Your task to perform on an android device: install app "VLC for Android" Image 0: 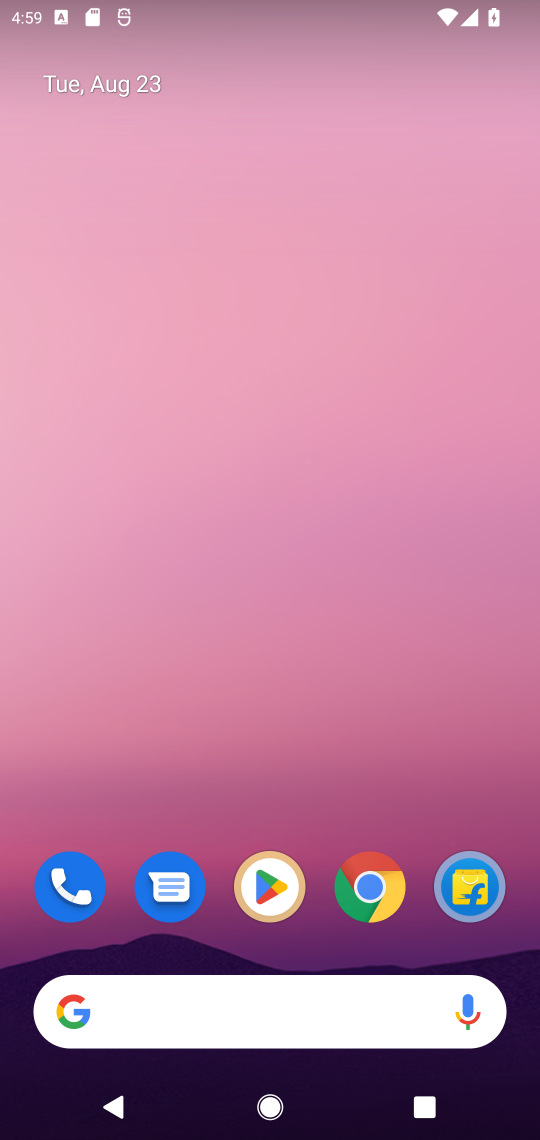
Step 0: click (274, 903)
Your task to perform on an android device: install app "VLC for Android" Image 1: 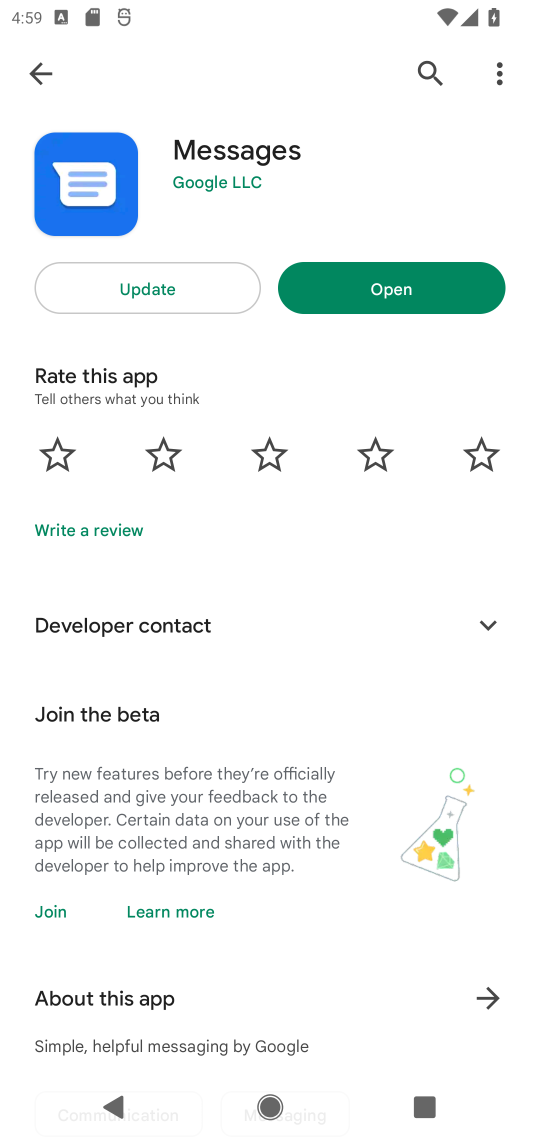
Step 1: click (52, 68)
Your task to perform on an android device: install app "VLC for Android" Image 2: 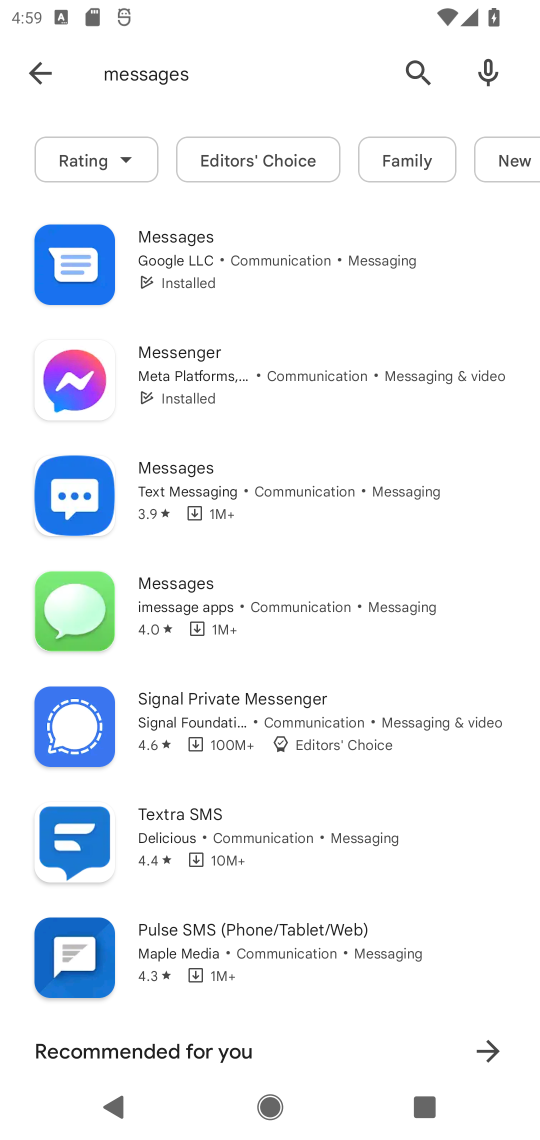
Step 2: click (42, 76)
Your task to perform on an android device: install app "VLC for Android" Image 3: 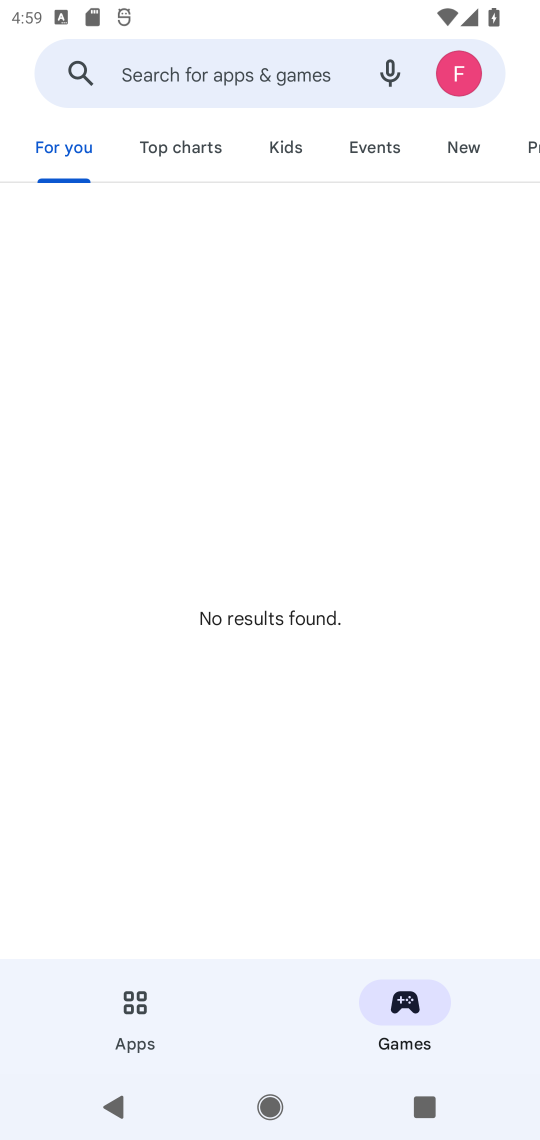
Step 3: click (230, 71)
Your task to perform on an android device: install app "VLC for Android" Image 4: 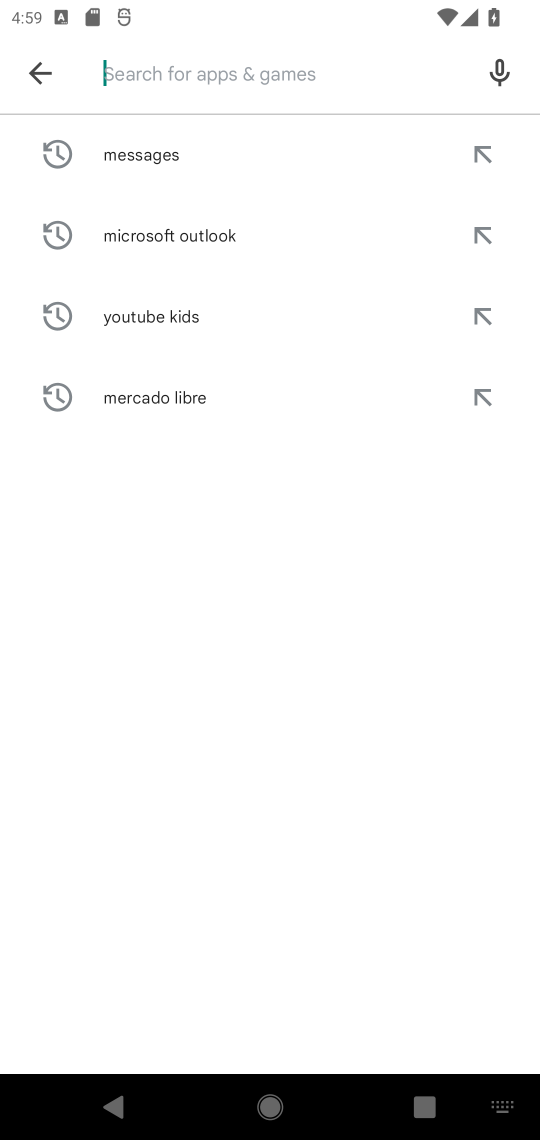
Step 4: type "VLC for Android"
Your task to perform on an android device: install app "VLC for Android" Image 5: 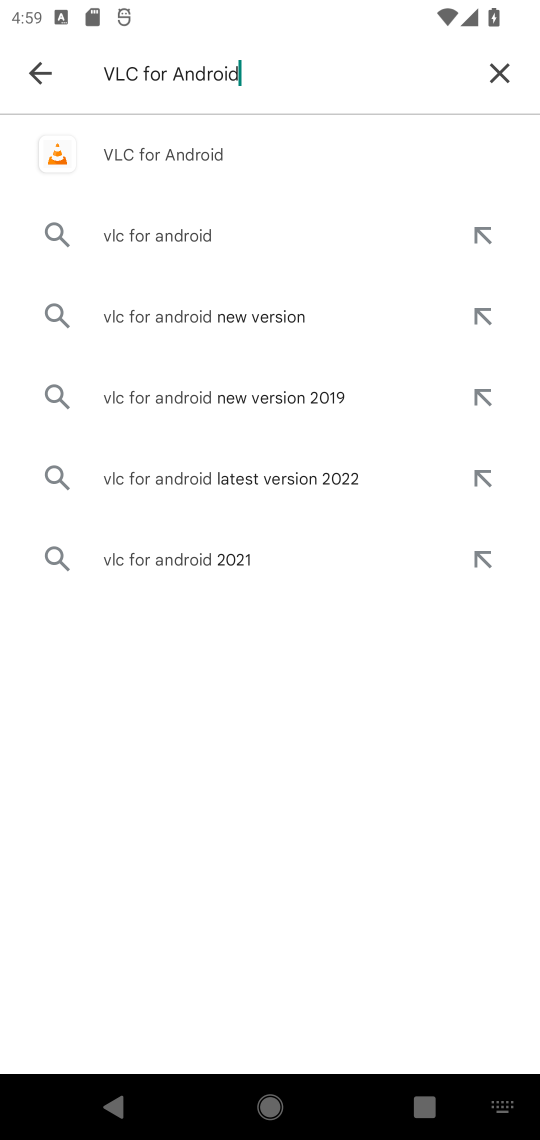
Step 5: click (171, 156)
Your task to perform on an android device: install app "VLC for Android" Image 6: 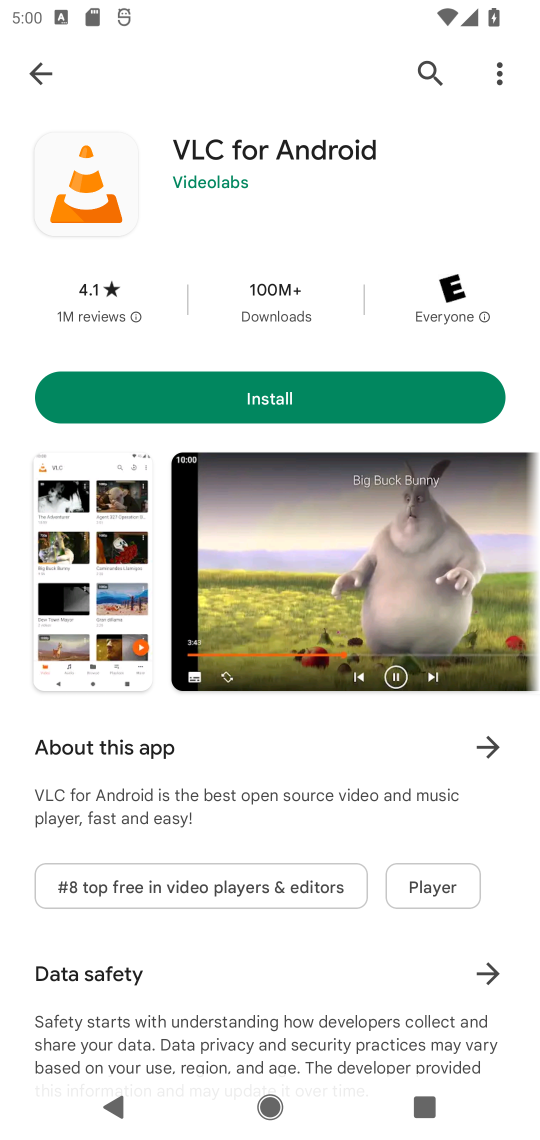
Step 6: click (275, 389)
Your task to perform on an android device: install app "VLC for Android" Image 7: 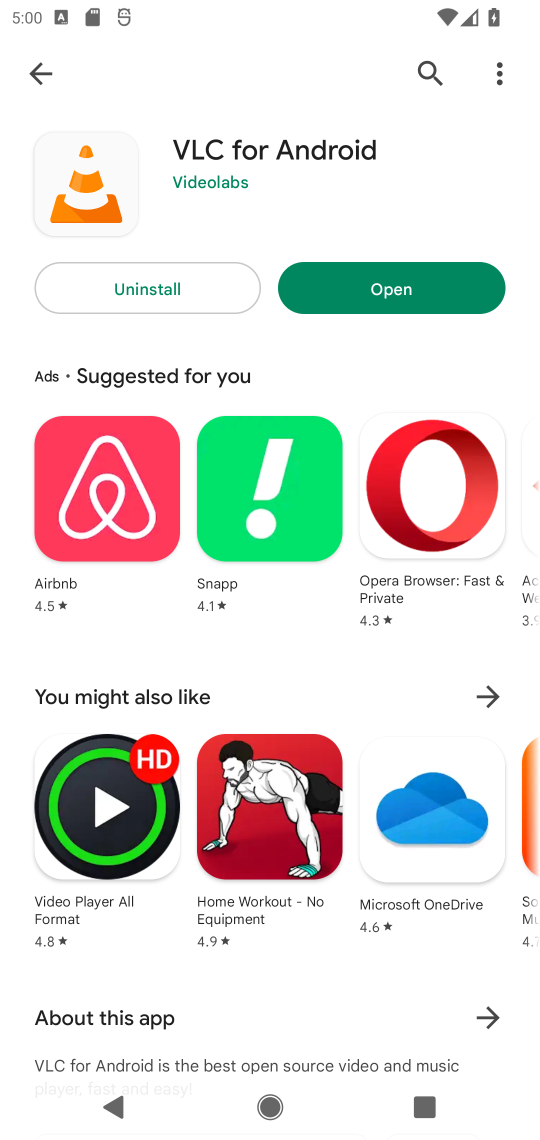
Step 7: click (374, 273)
Your task to perform on an android device: install app "VLC for Android" Image 8: 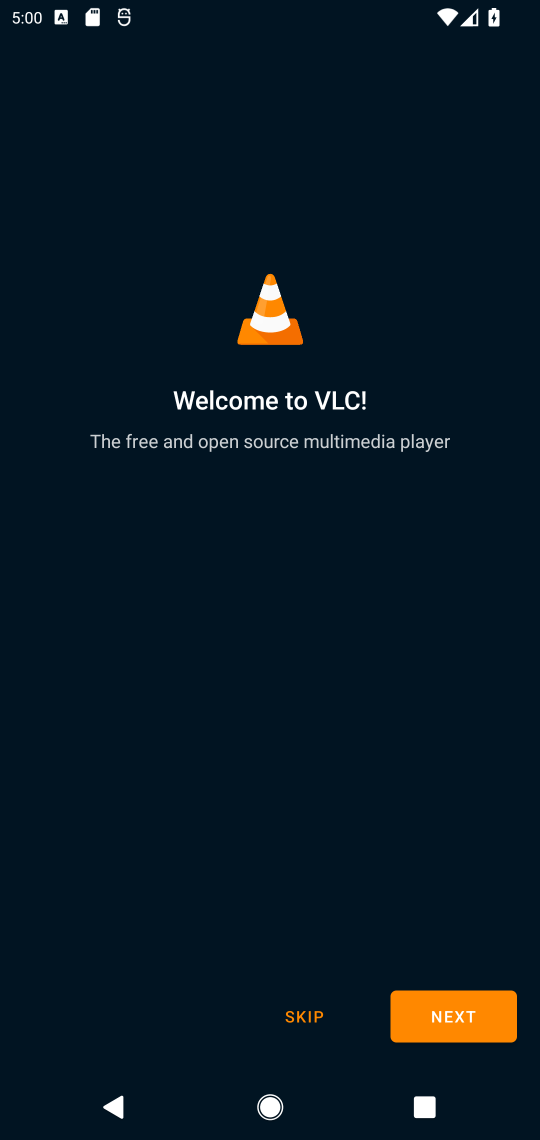
Step 8: click (456, 1022)
Your task to perform on an android device: install app "VLC for Android" Image 9: 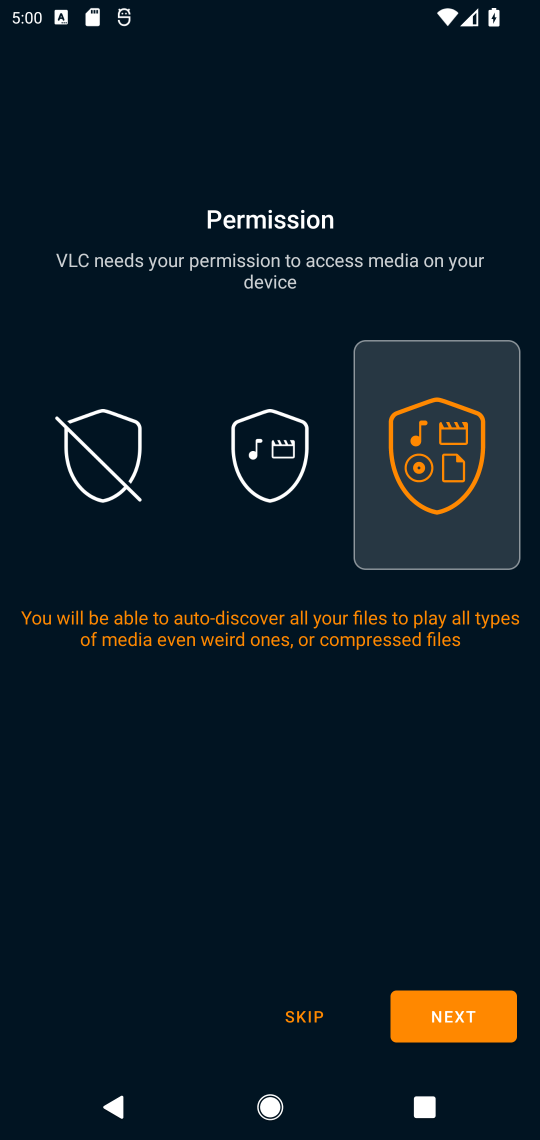
Step 9: click (456, 1022)
Your task to perform on an android device: install app "VLC for Android" Image 10: 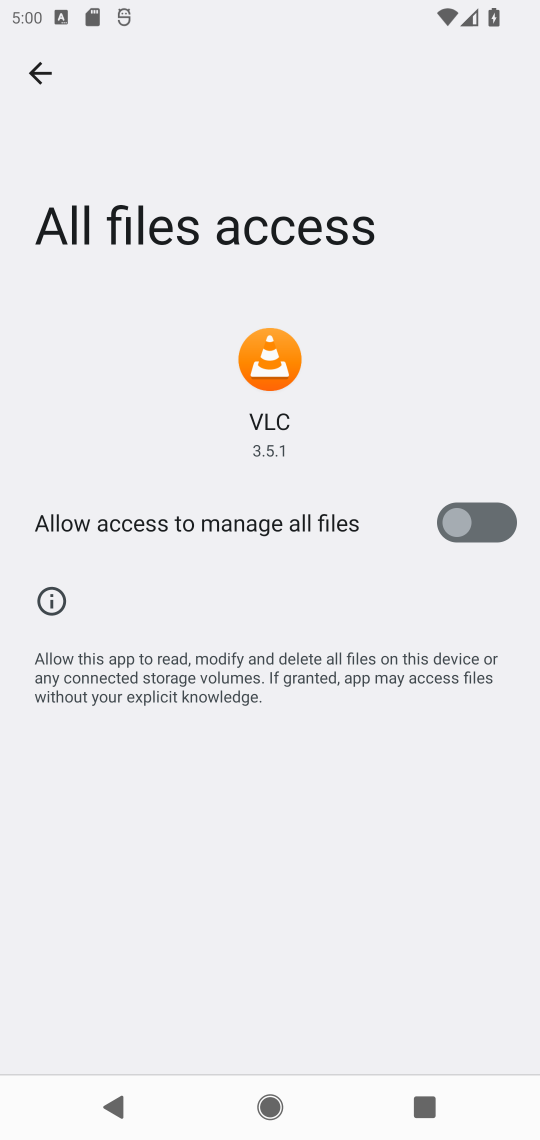
Step 10: task complete